Your task to perform on an android device: open a new tab in the chrome app Image 0: 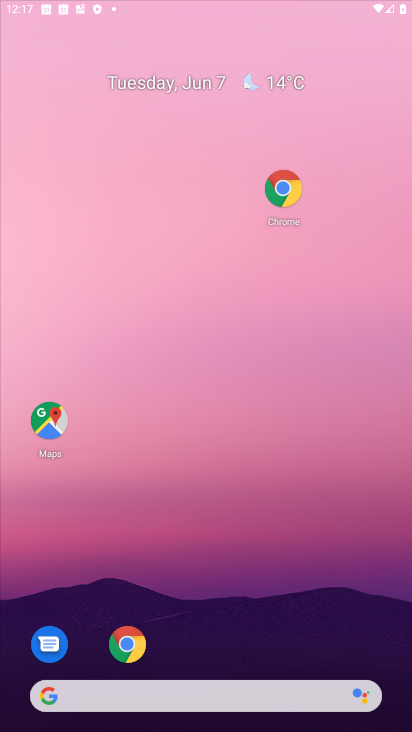
Step 0: click (321, 58)
Your task to perform on an android device: open a new tab in the chrome app Image 1: 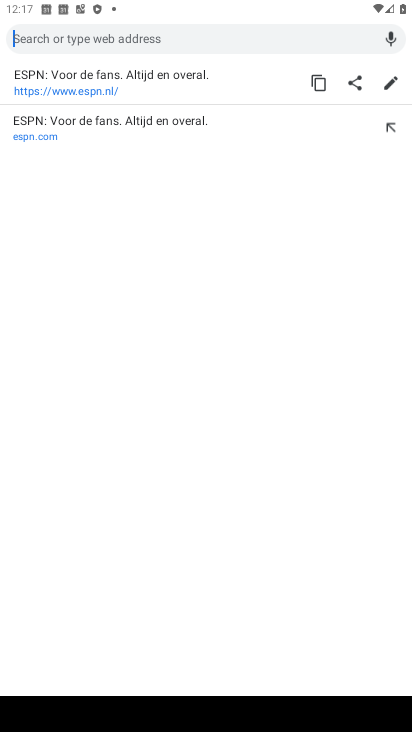
Step 1: press home button
Your task to perform on an android device: open a new tab in the chrome app Image 2: 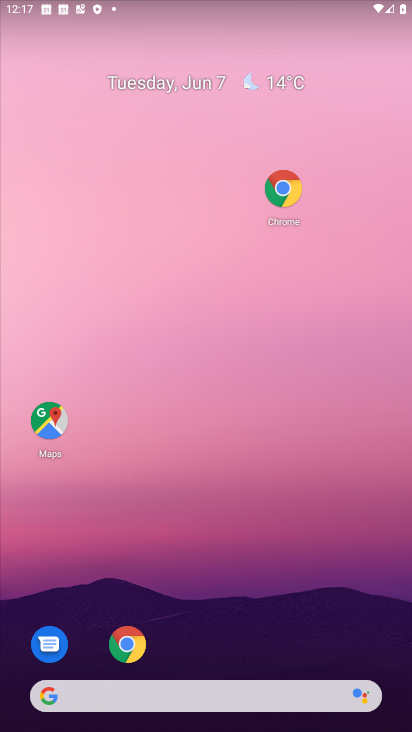
Step 2: click (285, 187)
Your task to perform on an android device: open a new tab in the chrome app Image 3: 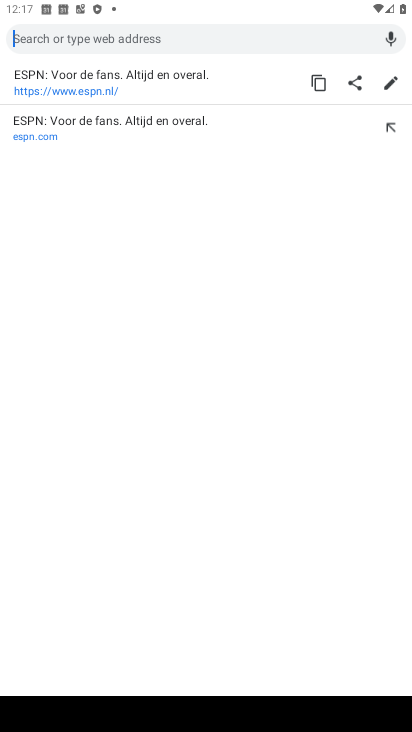
Step 3: press back button
Your task to perform on an android device: open a new tab in the chrome app Image 4: 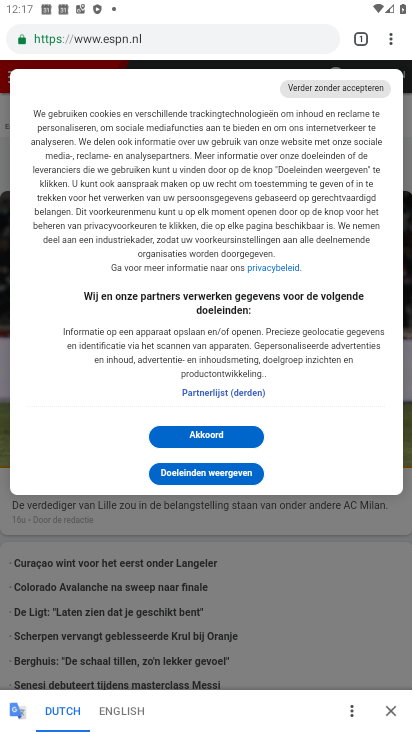
Step 4: click (392, 33)
Your task to perform on an android device: open a new tab in the chrome app Image 5: 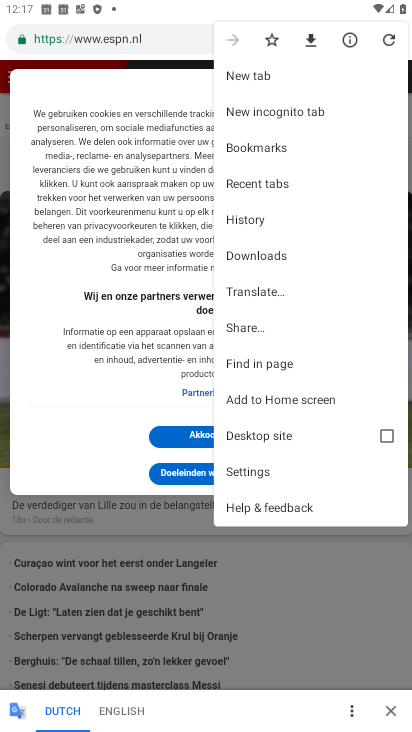
Step 5: click (303, 71)
Your task to perform on an android device: open a new tab in the chrome app Image 6: 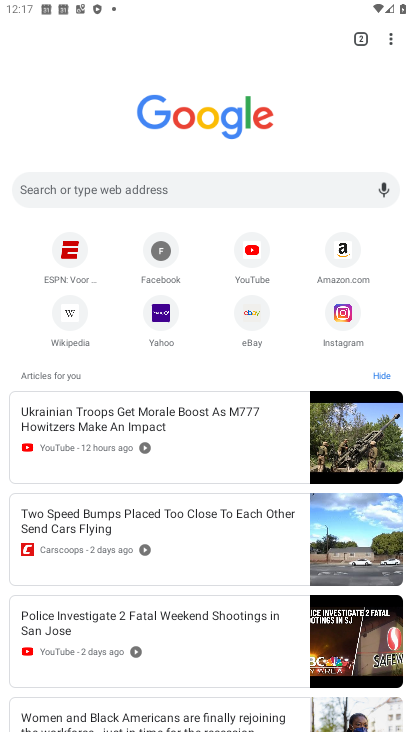
Step 6: task complete